Your task to perform on an android device: What's on the menu at Denny's? Image 0: 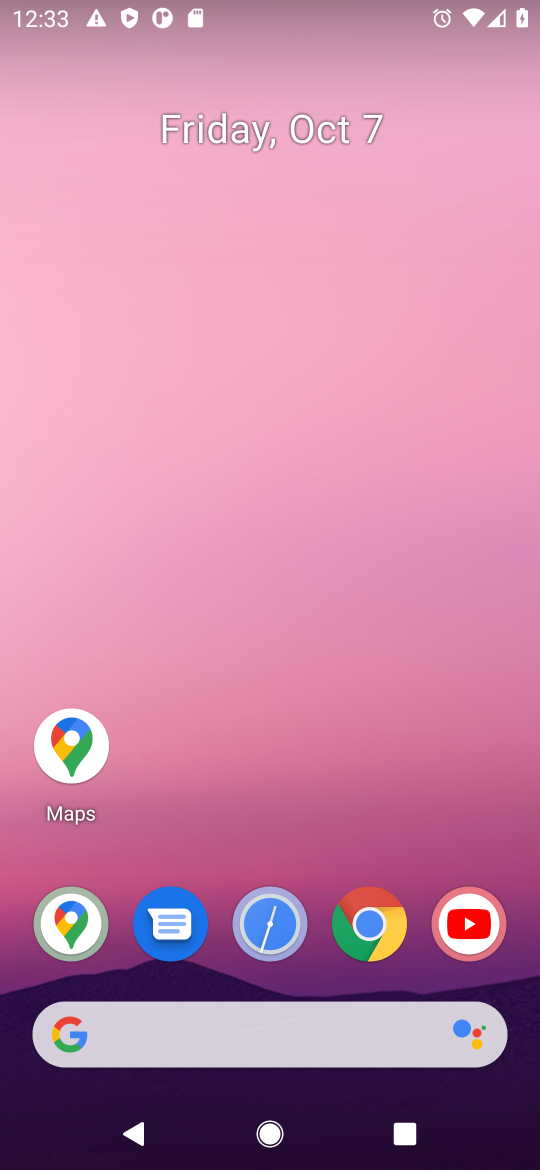
Step 0: click (355, 916)
Your task to perform on an android device: What's on the menu at Denny's? Image 1: 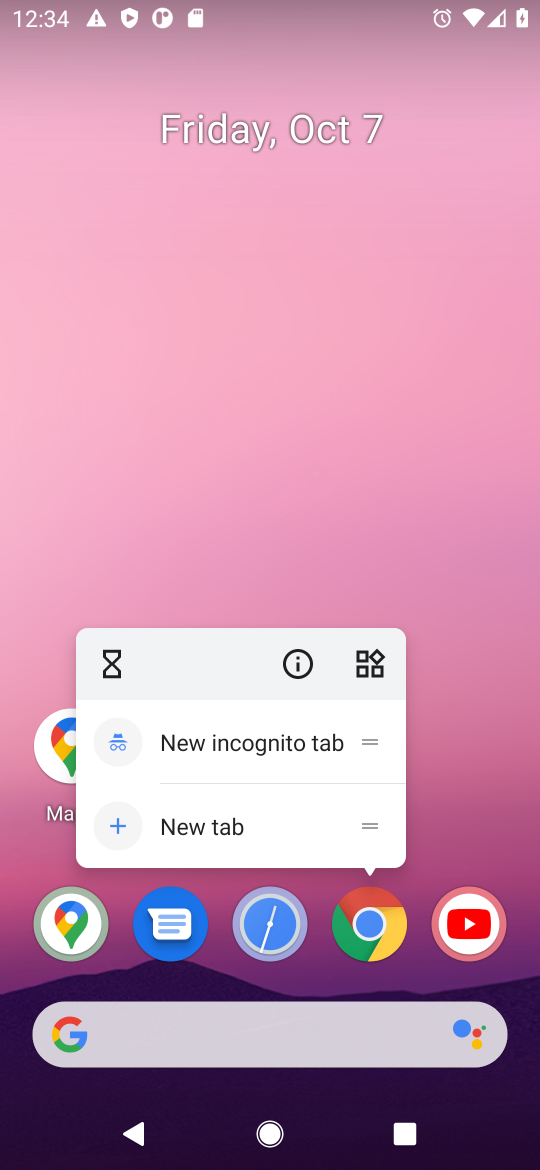
Step 1: click (372, 930)
Your task to perform on an android device: What's on the menu at Denny's? Image 2: 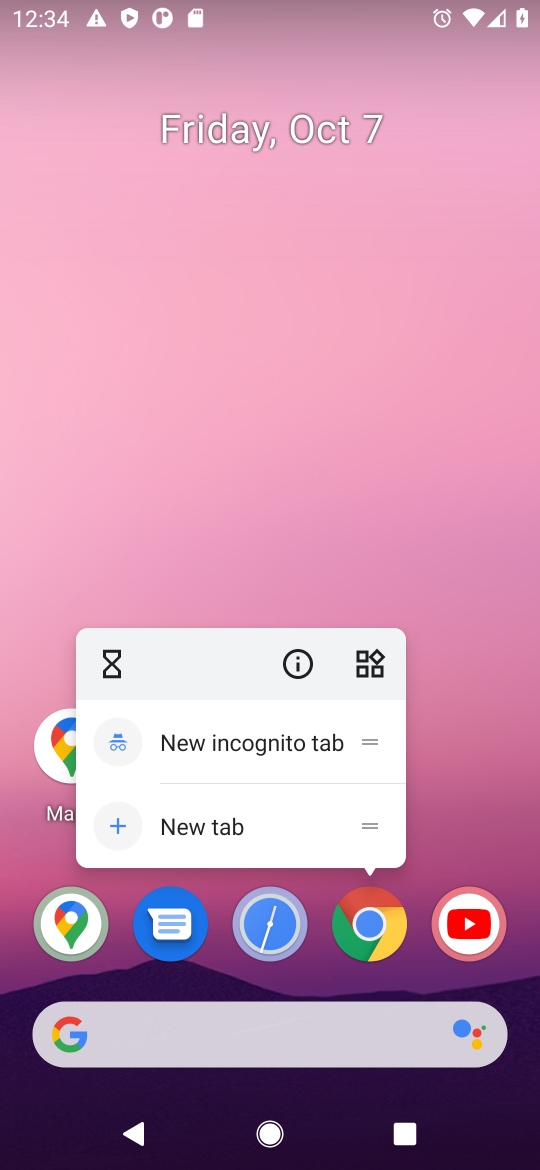
Step 2: click (386, 919)
Your task to perform on an android device: What's on the menu at Denny's? Image 3: 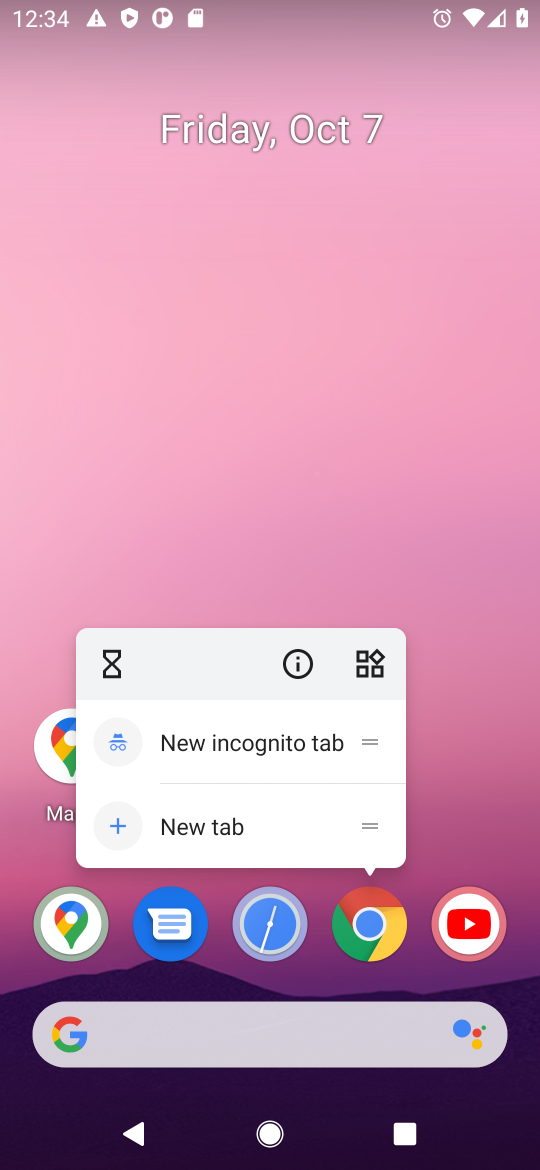
Step 3: click (372, 930)
Your task to perform on an android device: What's on the menu at Denny's? Image 4: 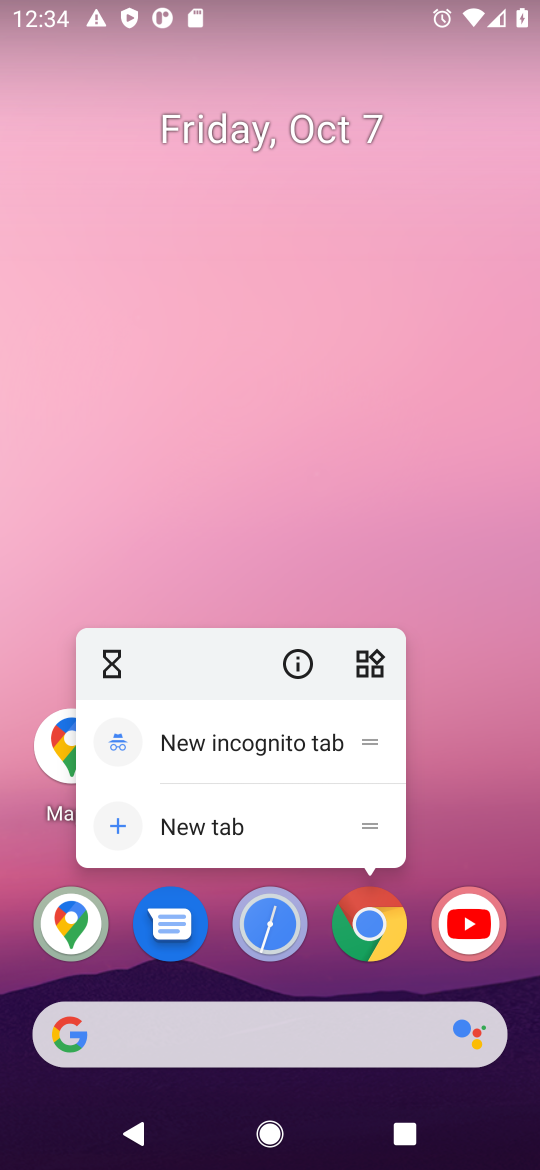
Step 4: click (377, 918)
Your task to perform on an android device: What's on the menu at Denny's? Image 5: 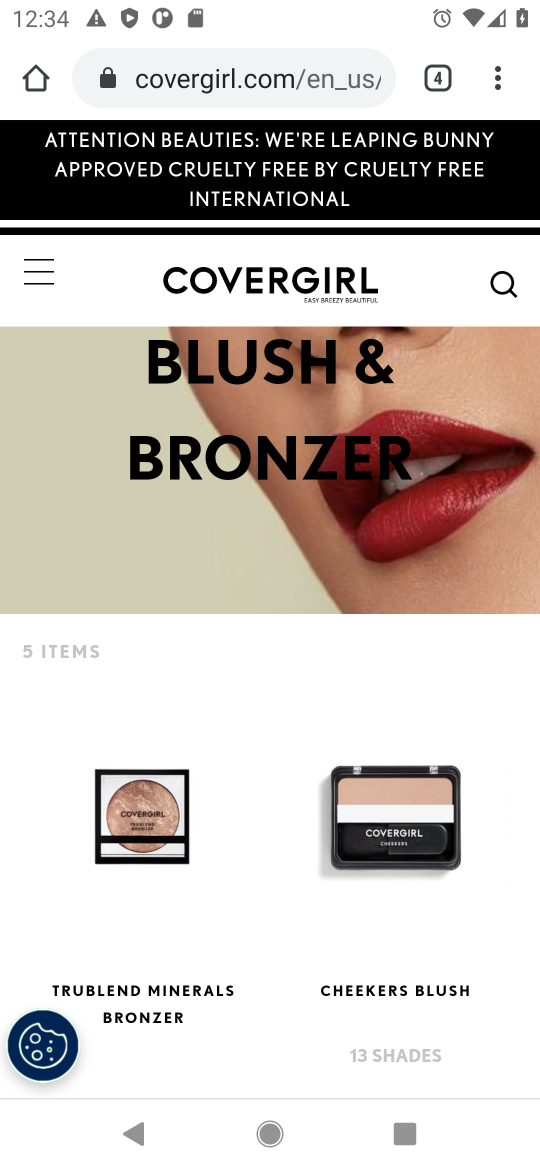
Step 5: click (319, 75)
Your task to perform on an android device: What's on the menu at Denny's? Image 6: 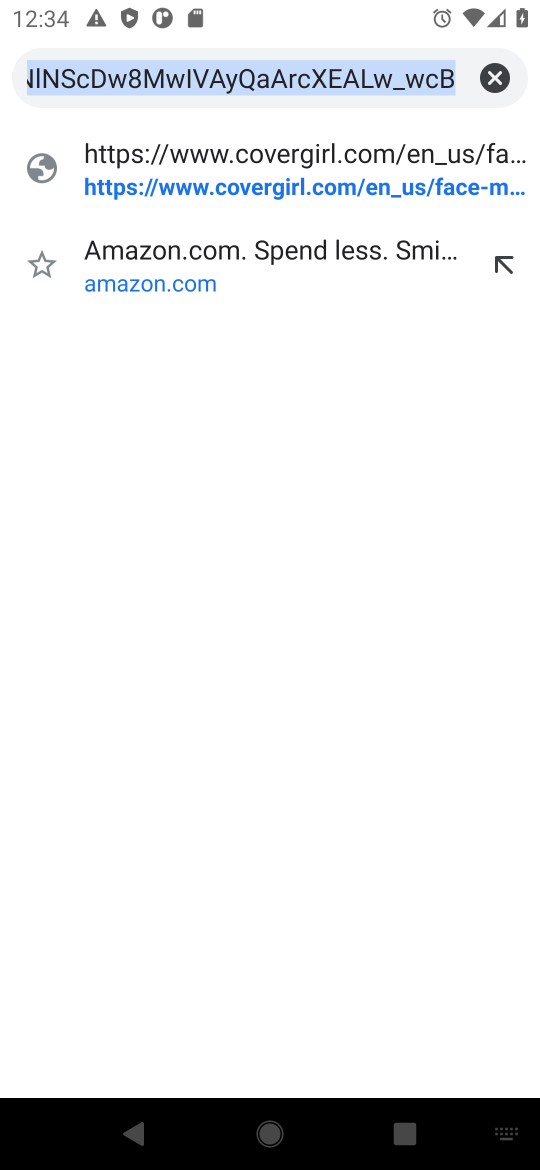
Step 6: click (497, 76)
Your task to perform on an android device: What's on the menu at Denny's? Image 7: 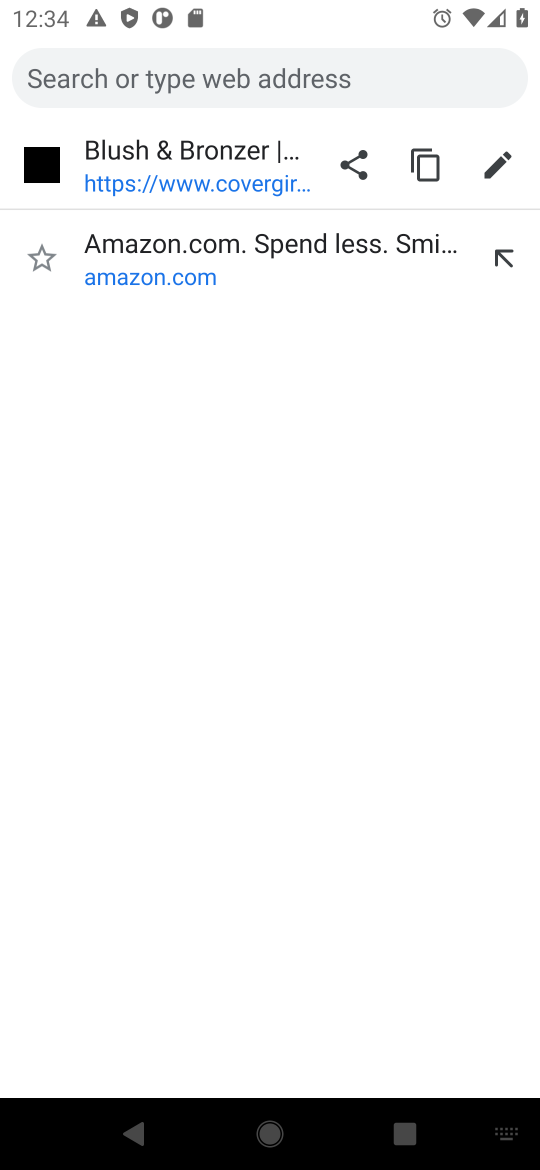
Step 7: type "menu at Denny's"
Your task to perform on an android device: What's on the menu at Denny's? Image 8: 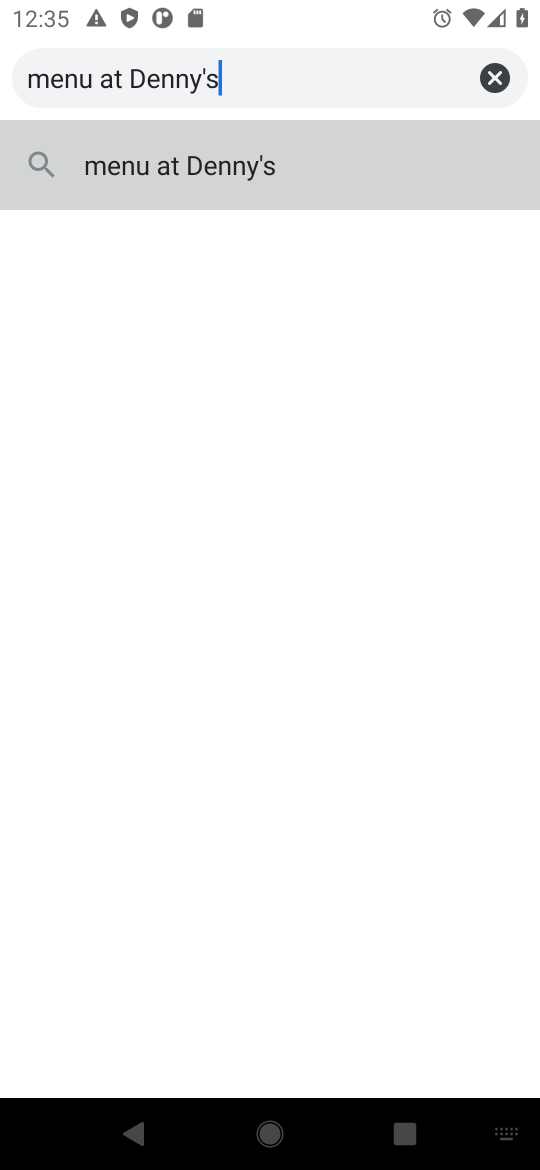
Step 8: click (200, 154)
Your task to perform on an android device: What's on the menu at Denny's? Image 9: 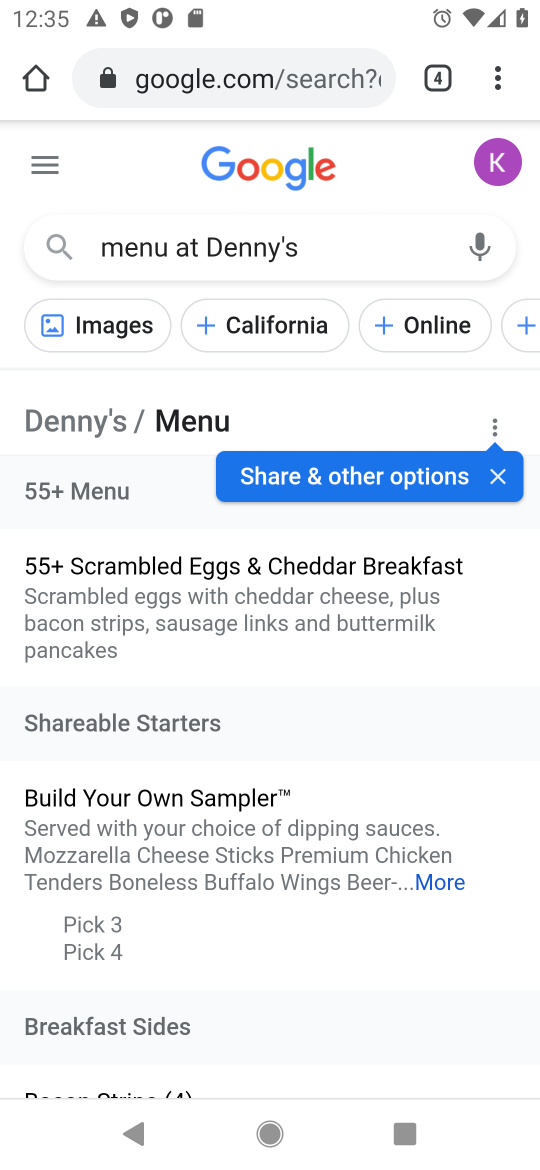
Step 9: drag from (292, 881) to (445, 145)
Your task to perform on an android device: What's on the menu at Denny's? Image 10: 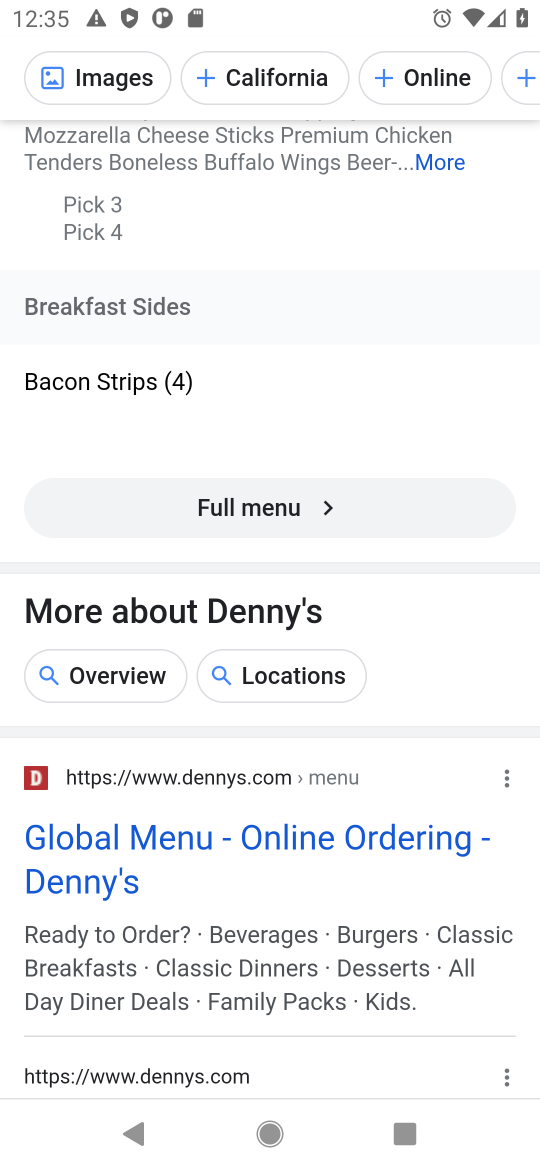
Step 10: click (268, 512)
Your task to perform on an android device: What's on the menu at Denny's? Image 11: 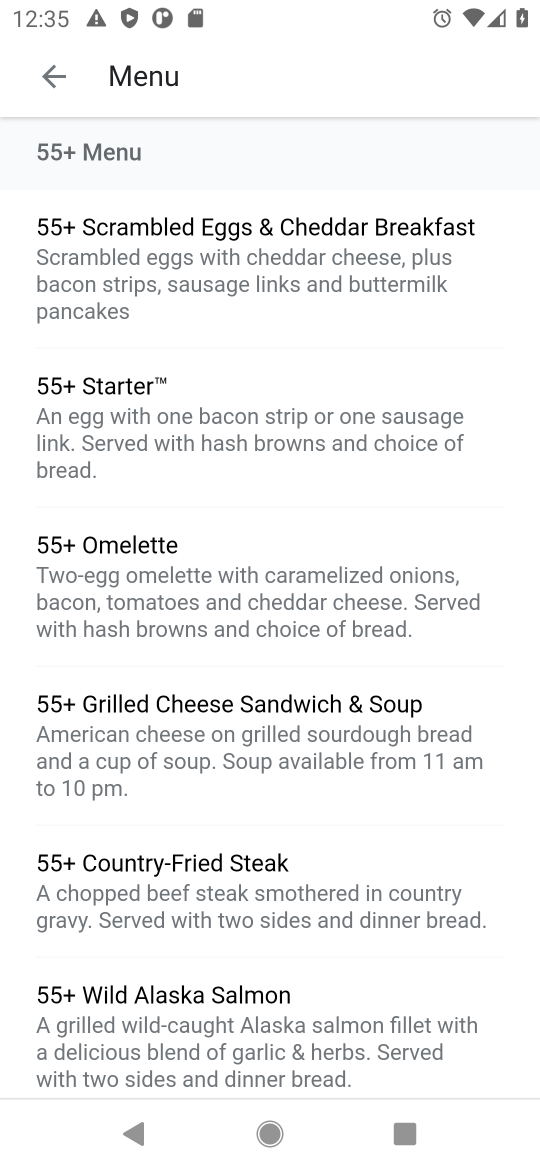
Step 11: task complete